Your task to perform on an android device: Open wifi settings Image 0: 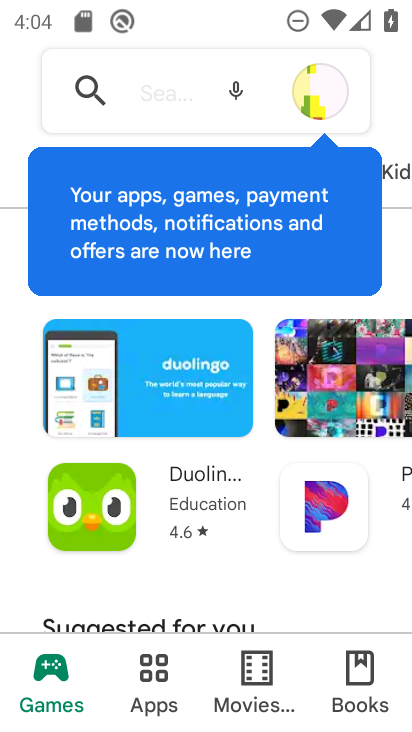
Step 0: press home button
Your task to perform on an android device: Open wifi settings Image 1: 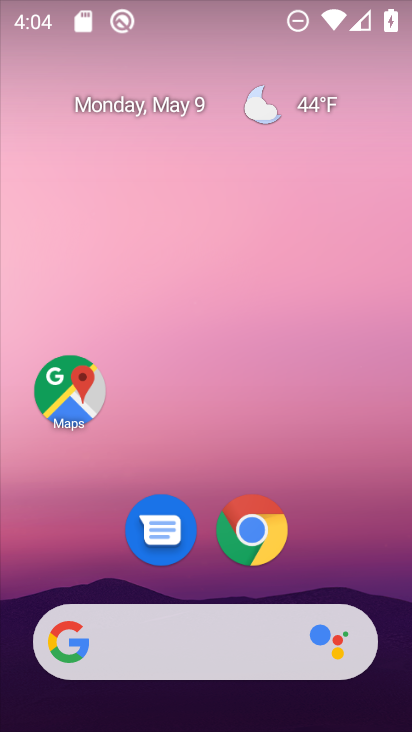
Step 1: drag from (226, 11) to (197, 666)
Your task to perform on an android device: Open wifi settings Image 2: 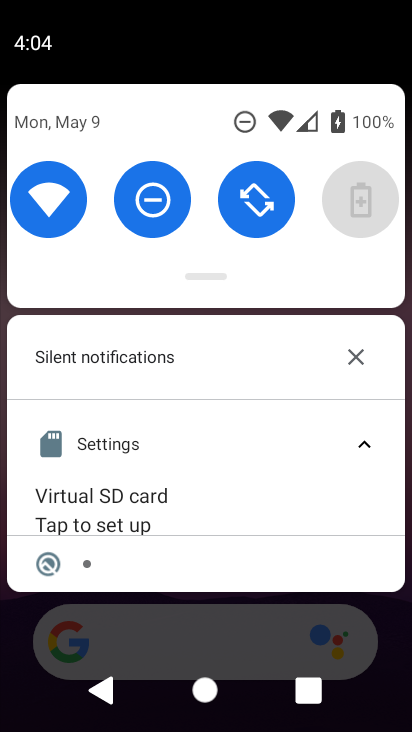
Step 2: drag from (192, 634) to (263, 72)
Your task to perform on an android device: Open wifi settings Image 3: 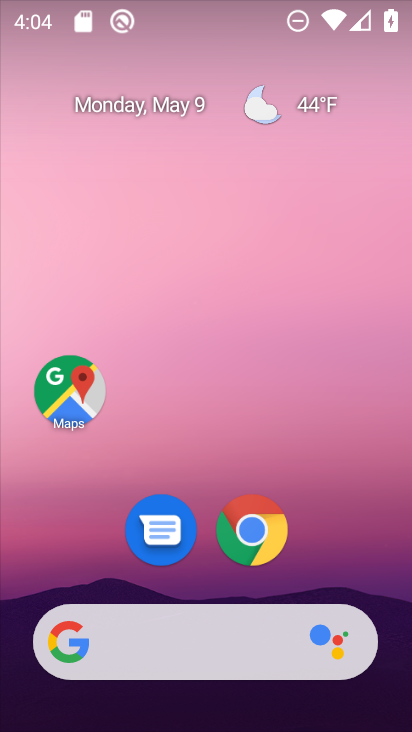
Step 3: drag from (206, 570) to (280, 42)
Your task to perform on an android device: Open wifi settings Image 4: 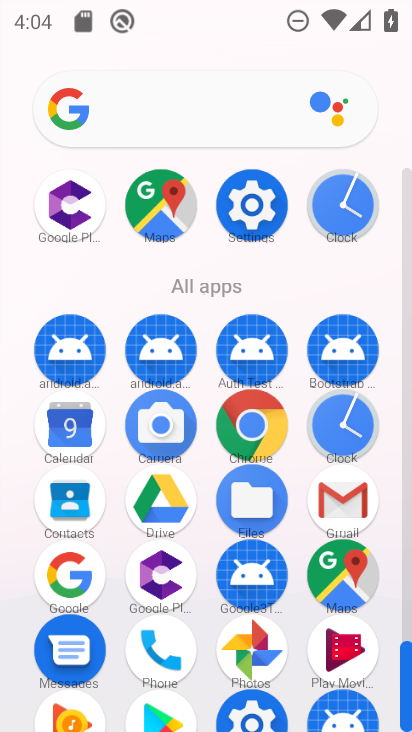
Step 4: click (254, 197)
Your task to perform on an android device: Open wifi settings Image 5: 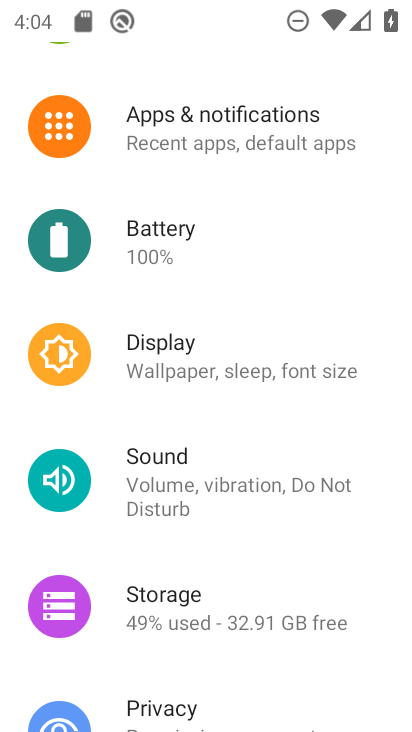
Step 5: drag from (168, 125) to (186, 702)
Your task to perform on an android device: Open wifi settings Image 6: 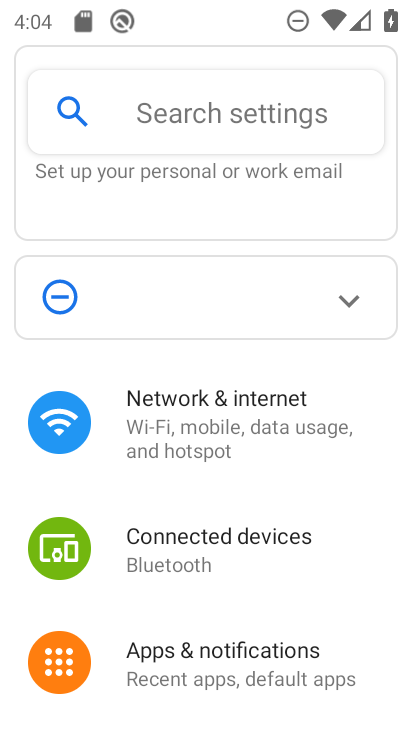
Step 6: click (110, 417)
Your task to perform on an android device: Open wifi settings Image 7: 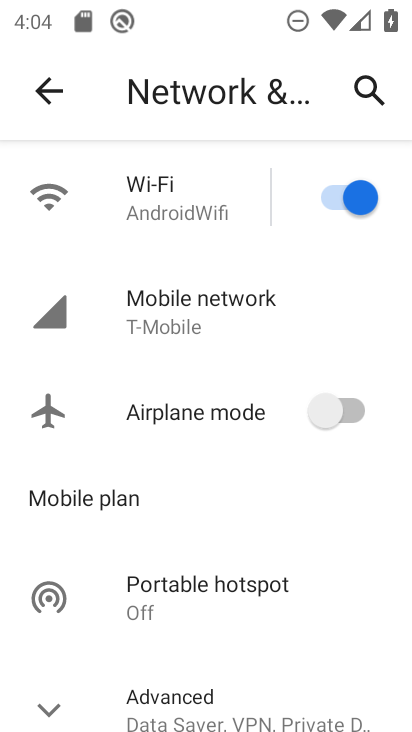
Step 7: click (192, 187)
Your task to perform on an android device: Open wifi settings Image 8: 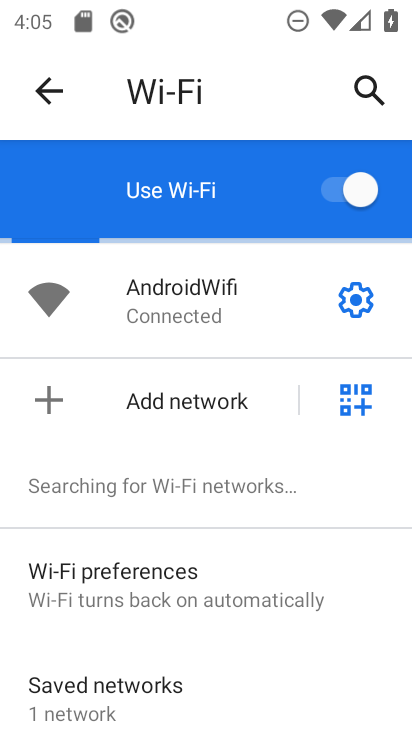
Step 8: task complete